Your task to perform on an android device: uninstall "Reddit" Image 0: 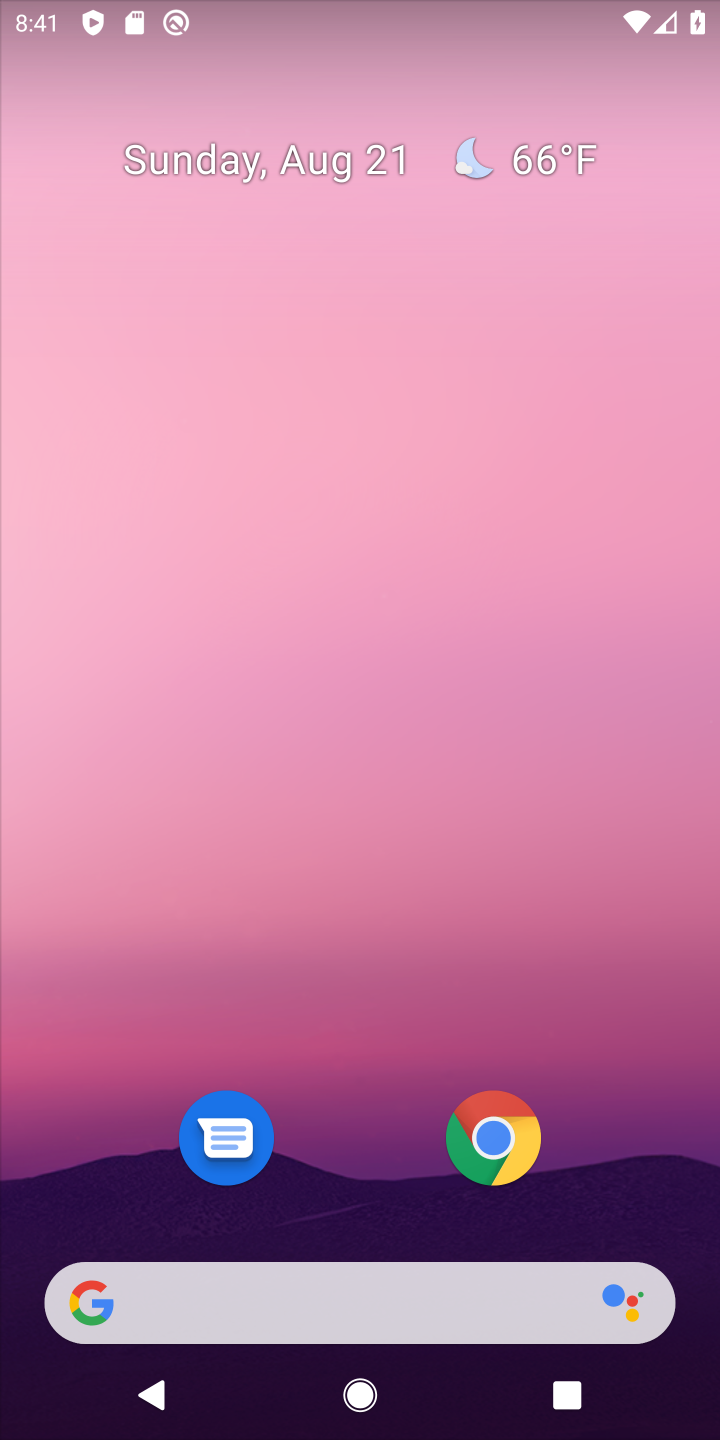
Step 0: press home button
Your task to perform on an android device: uninstall "Reddit" Image 1: 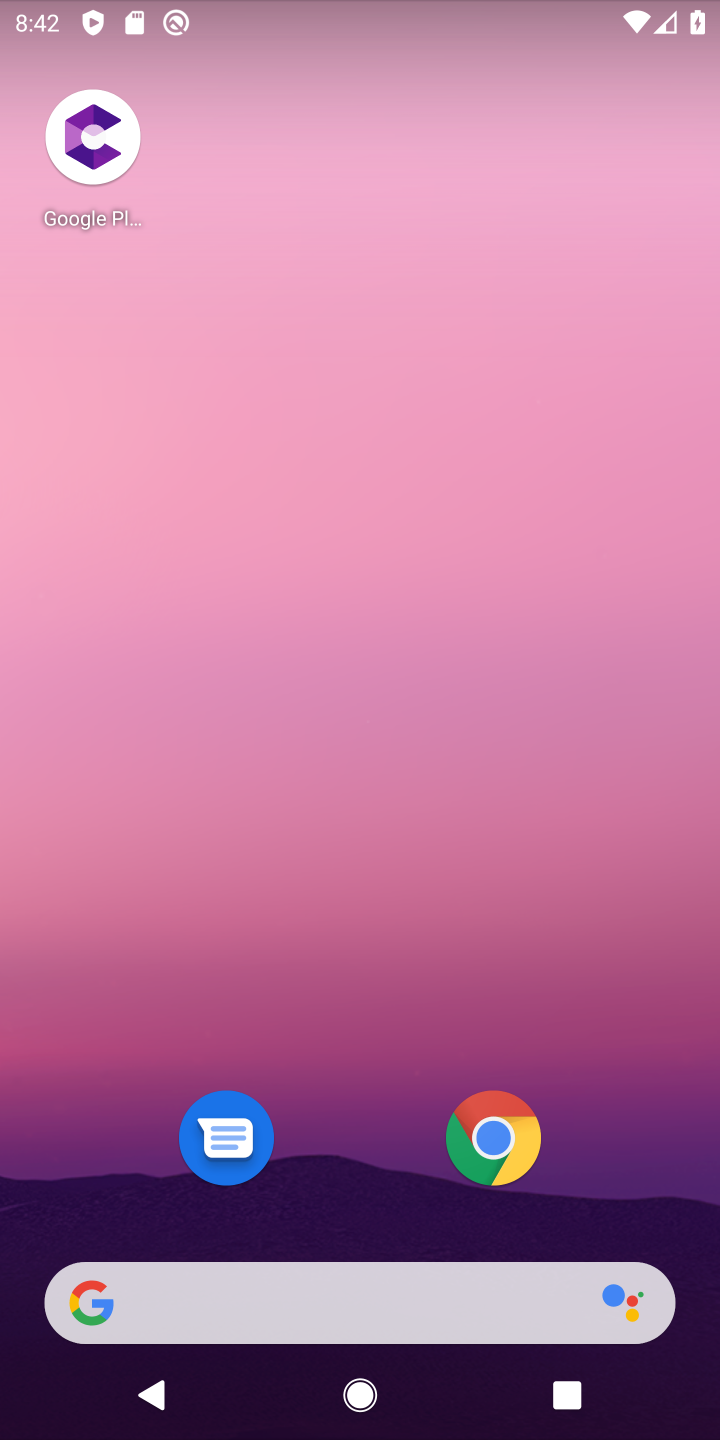
Step 1: drag from (602, 813) to (647, 159)
Your task to perform on an android device: uninstall "Reddit" Image 2: 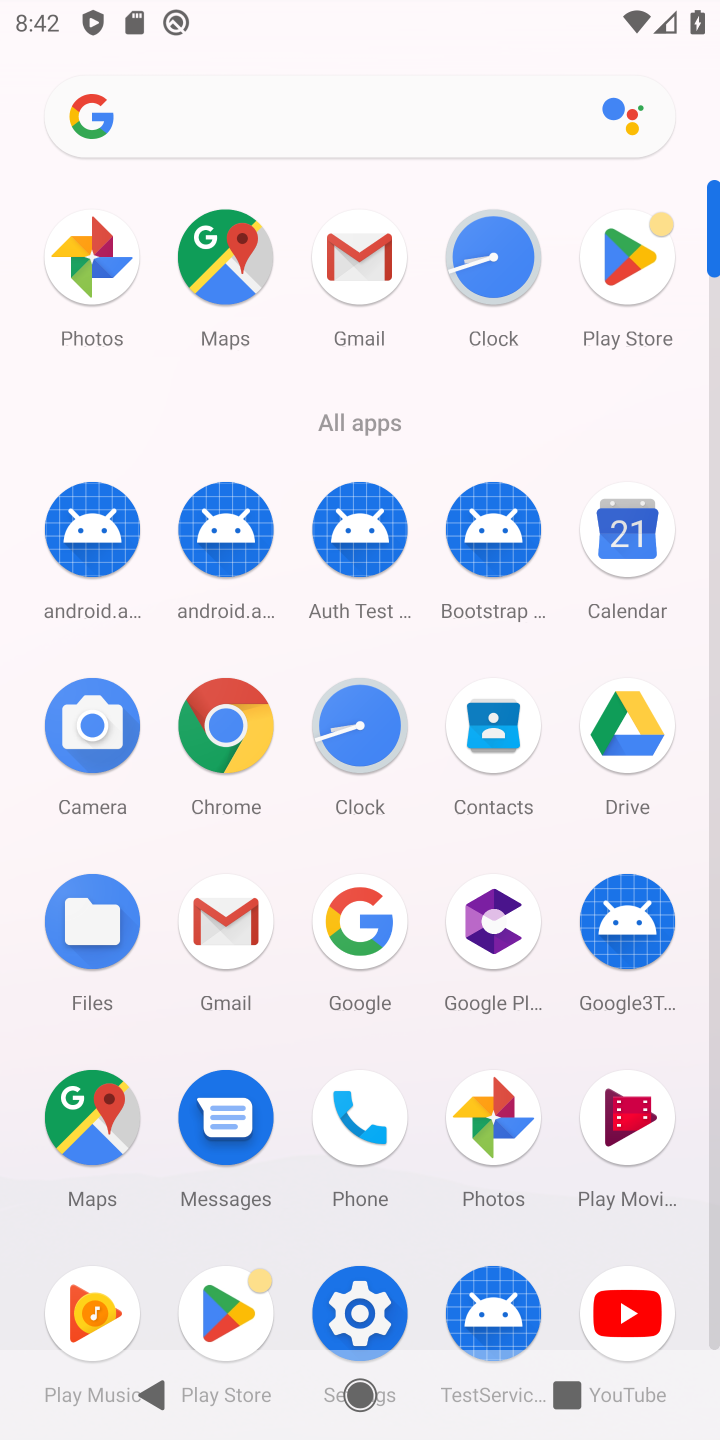
Step 2: click (634, 244)
Your task to perform on an android device: uninstall "Reddit" Image 3: 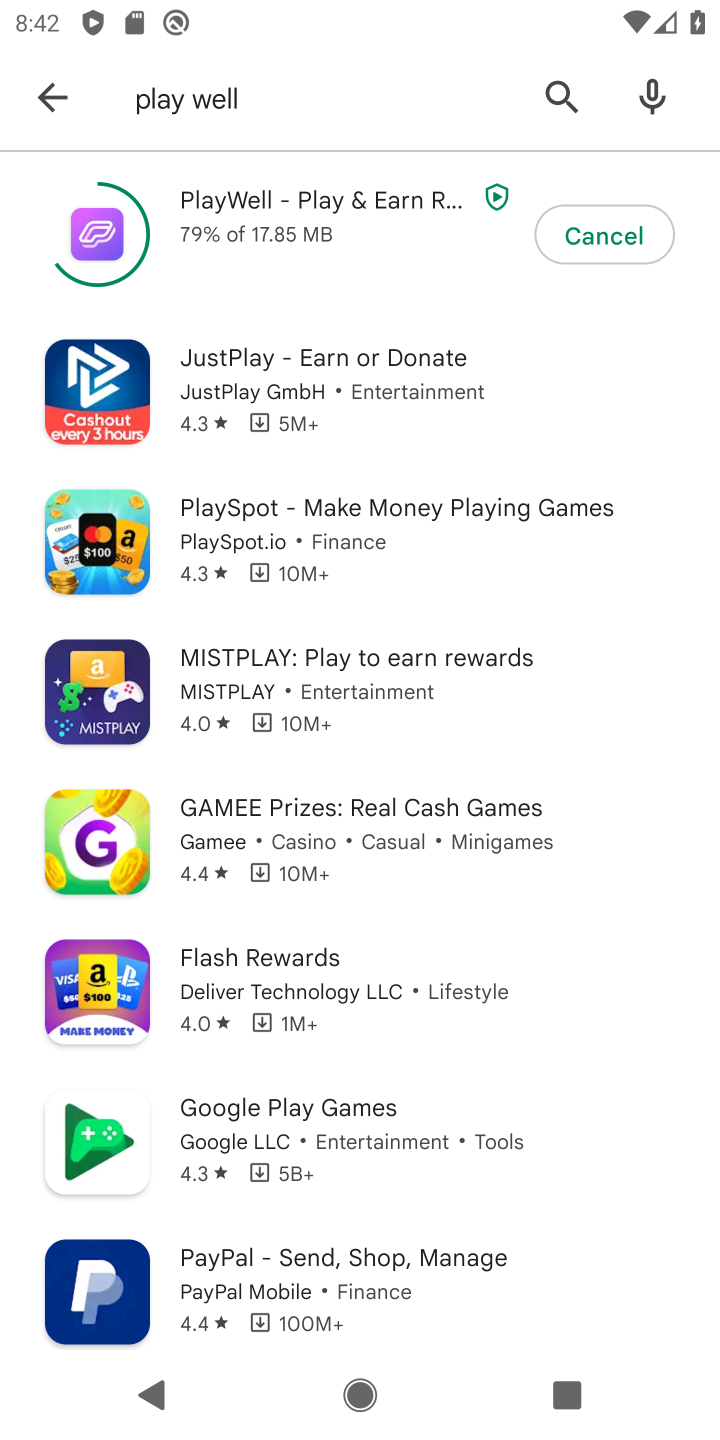
Step 3: press back button
Your task to perform on an android device: uninstall "Reddit" Image 4: 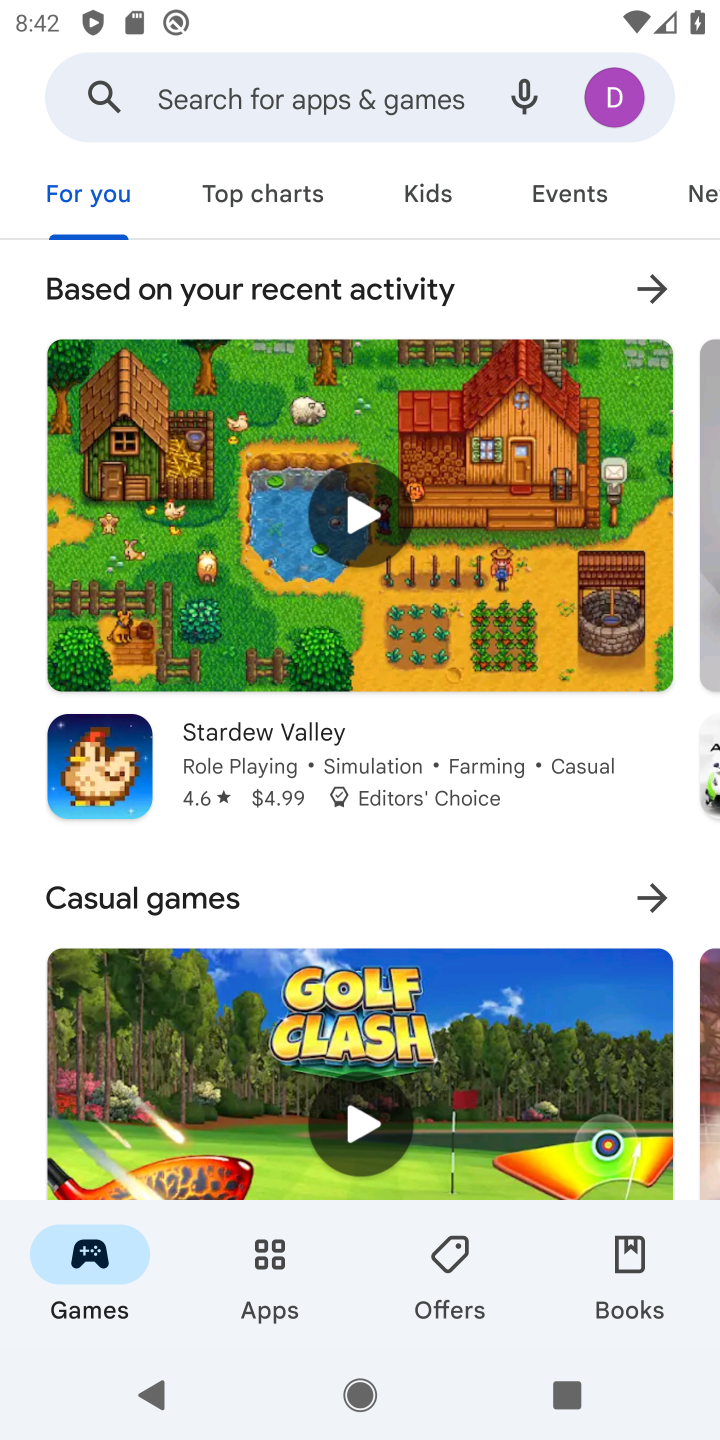
Step 4: click (309, 80)
Your task to perform on an android device: uninstall "Reddit" Image 5: 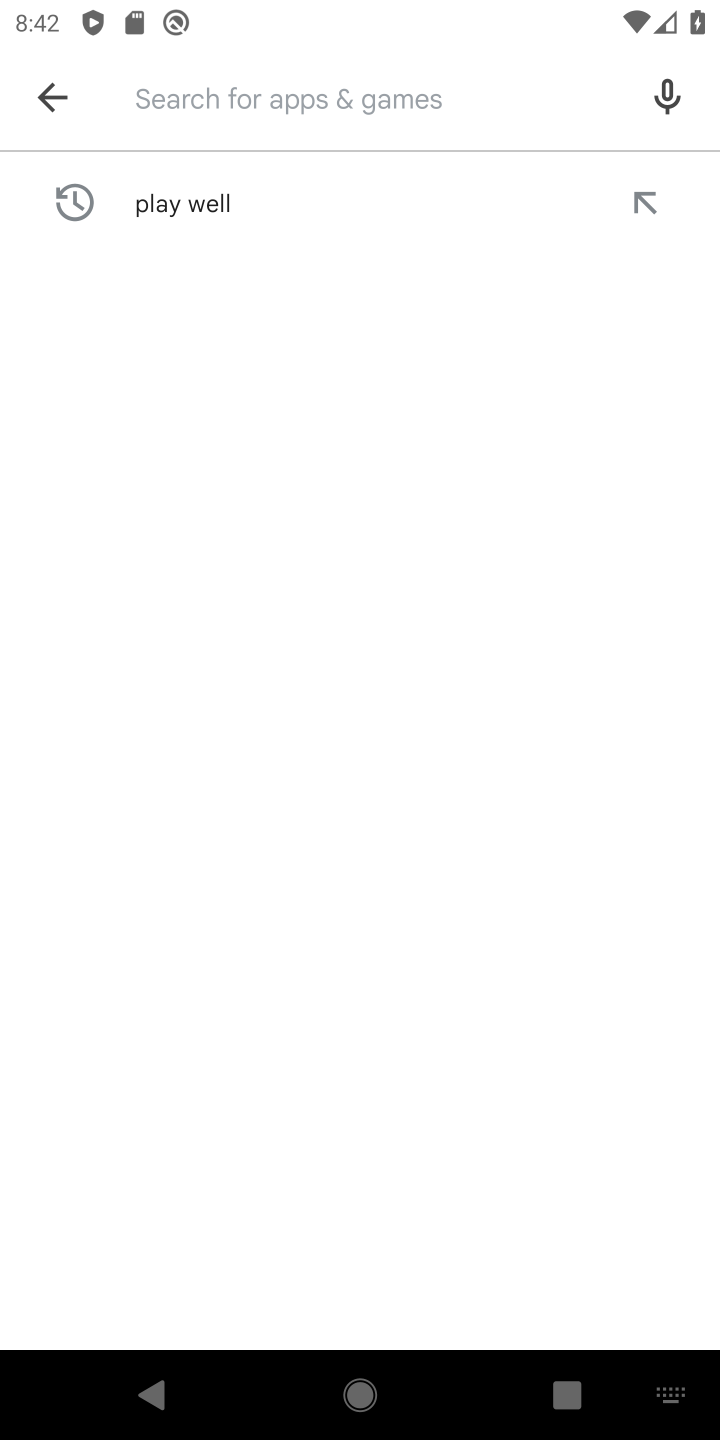
Step 5: press enter
Your task to perform on an android device: uninstall "Reddit" Image 6: 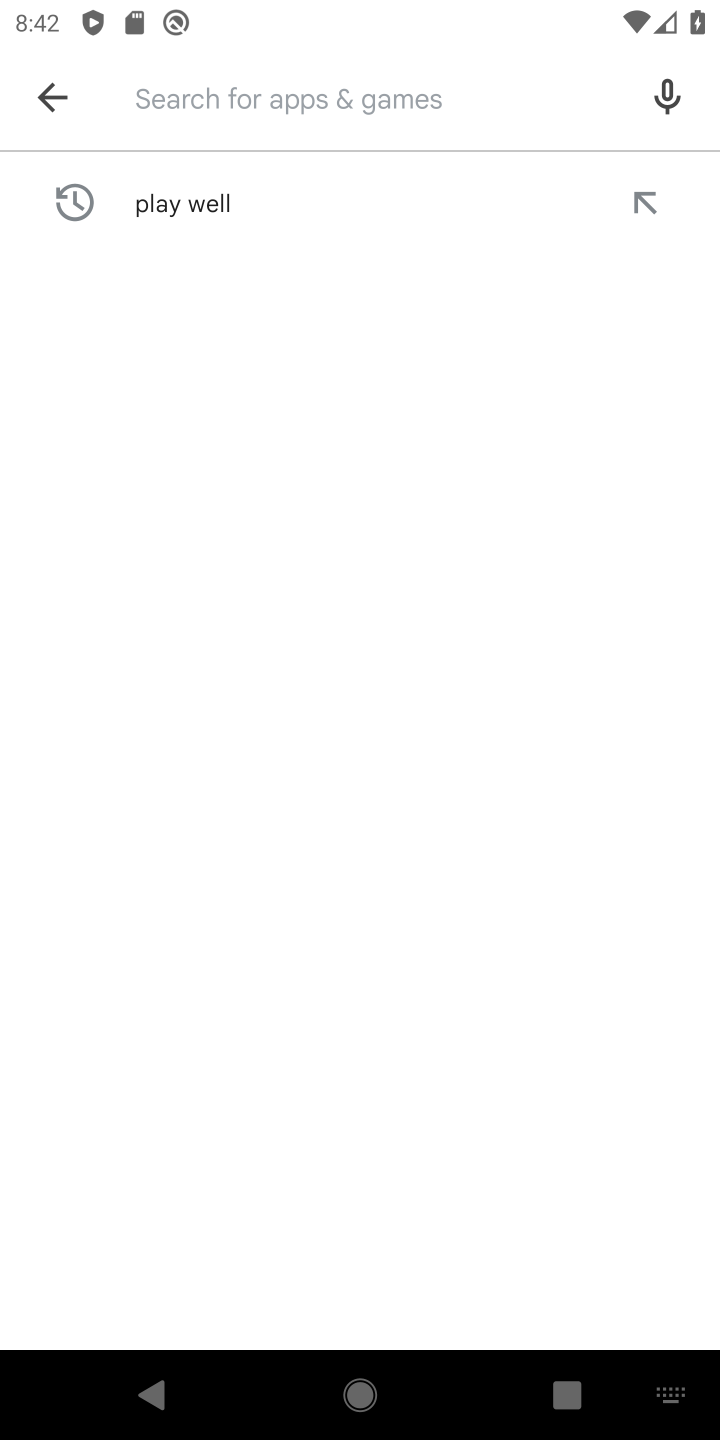
Step 6: type "reddit"
Your task to perform on an android device: uninstall "Reddit" Image 7: 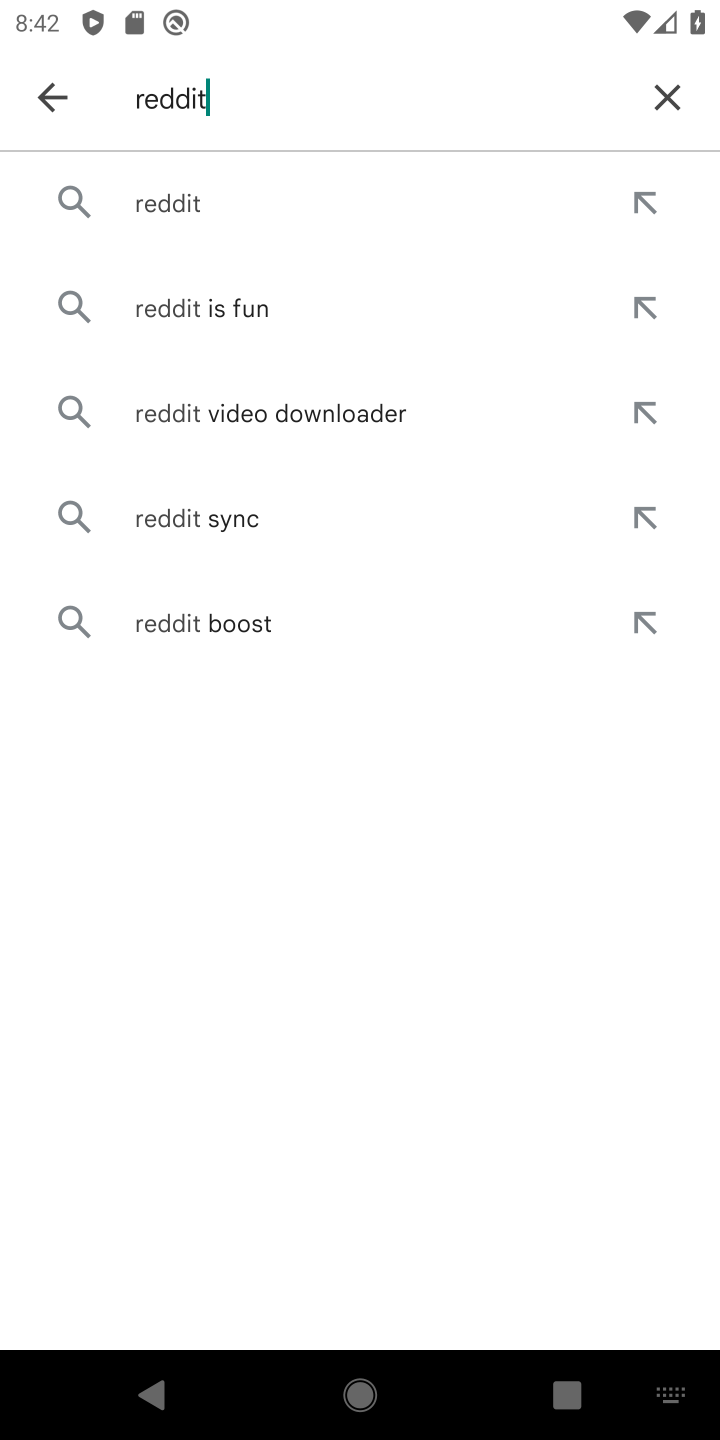
Step 7: click (210, 202)
Your task to perform on an android device: uninstall "Reddit" Image 8: 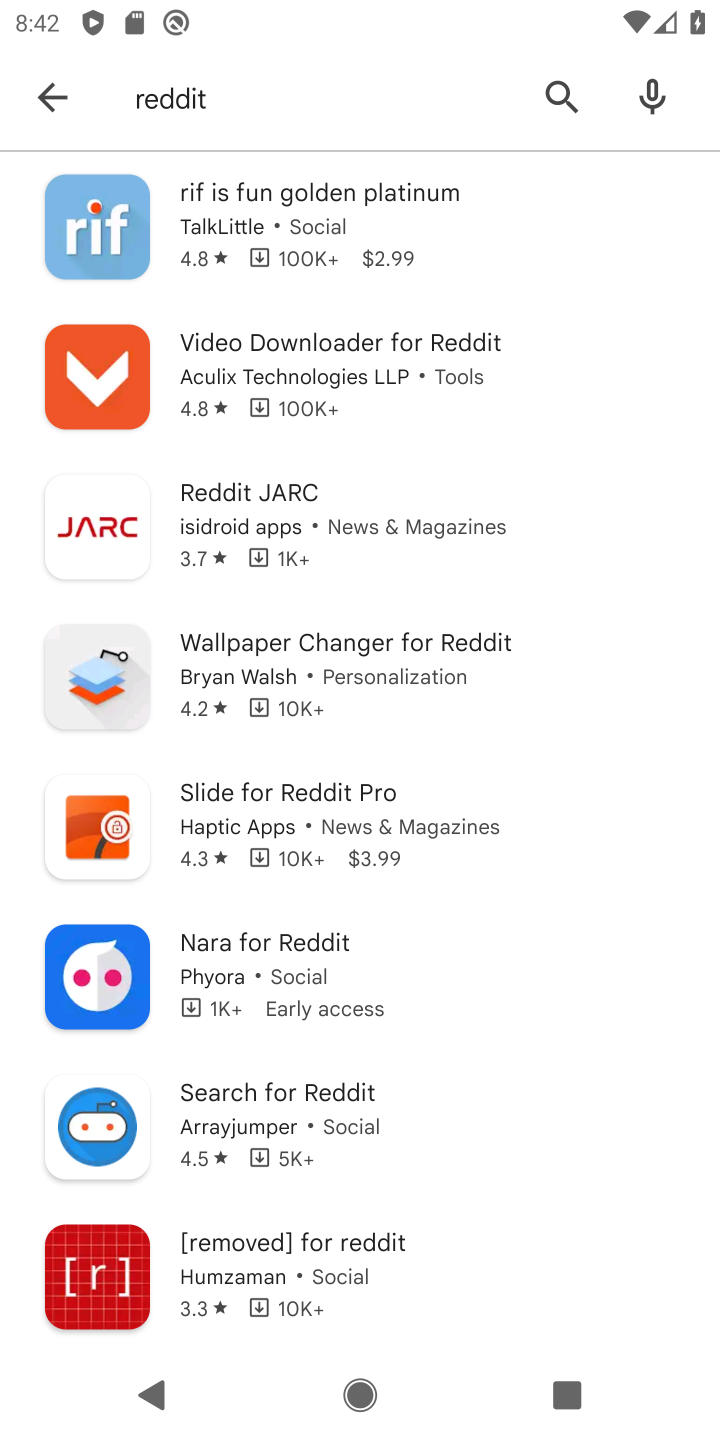
Step 8: task complete